Your task to perform on an android device: see sites visited before in the chrome app Image 0: 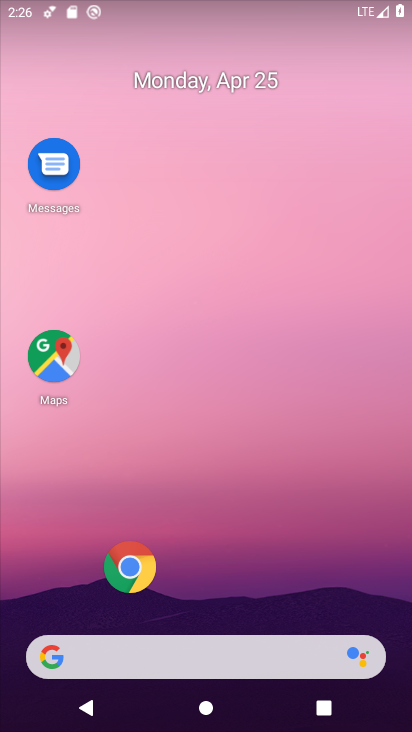
Step 0: drag from (261, 508) to (300, 163)
Your task to perform on an android device: see sites visited before in the chrome app Image 1: 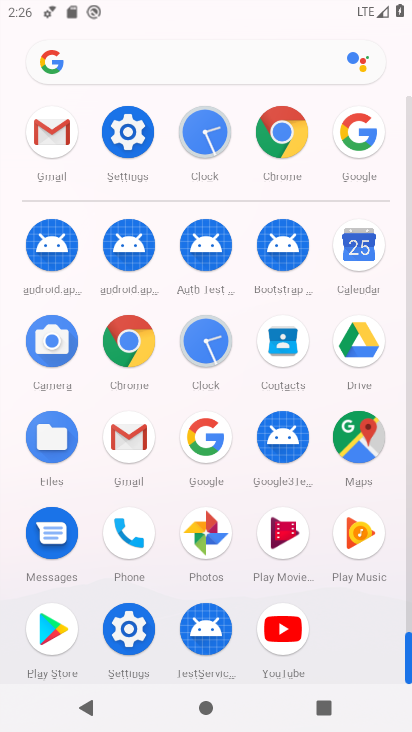
Step 1: click (274, 126)
Your task to perform on an android device: see sites visited before in the chrome app Image 2: 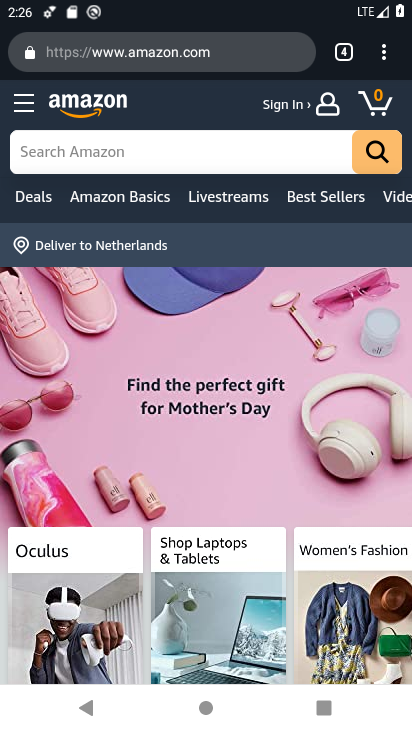
Step 2: click (387, 51)
Your task to perform on an android device: see sites visited before in the chrome app Image 3: 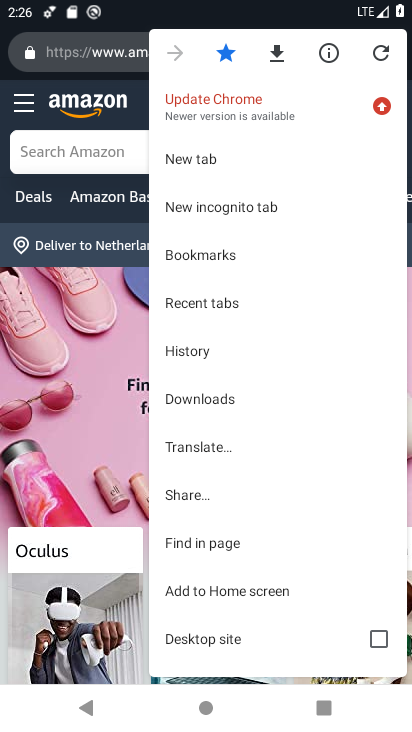
Step 3: drag from (226, 578) to (266, 217)
Your task to perform on an android device: see sites visited before in the chrome app Image 4: 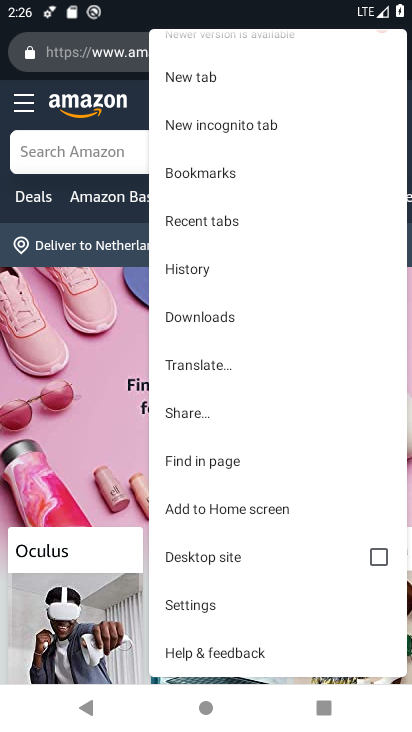
Step 4: click (207, 265)
Your task to perform on an android device: see sites visited before in the chrome app Image 5: 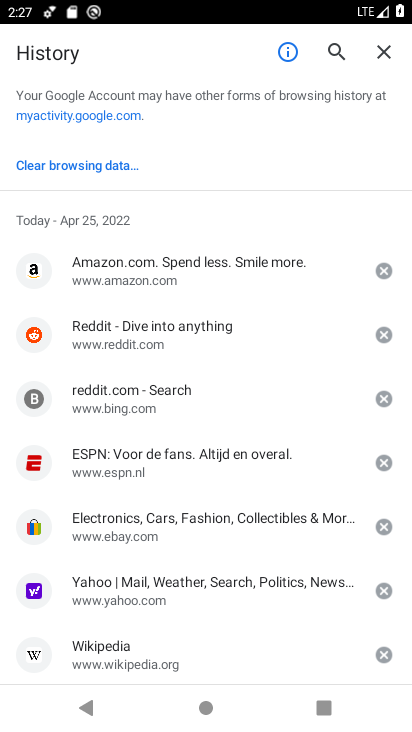
Step 5: task complete